Your task to perform on an android device: Go to Reddit.com Image 0: 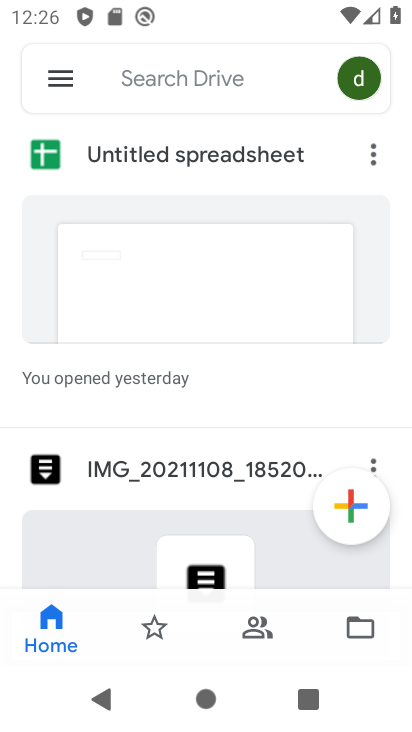
Step 0: press home button
Your task to perform on an android device: Go to Reddit.com Image 1: 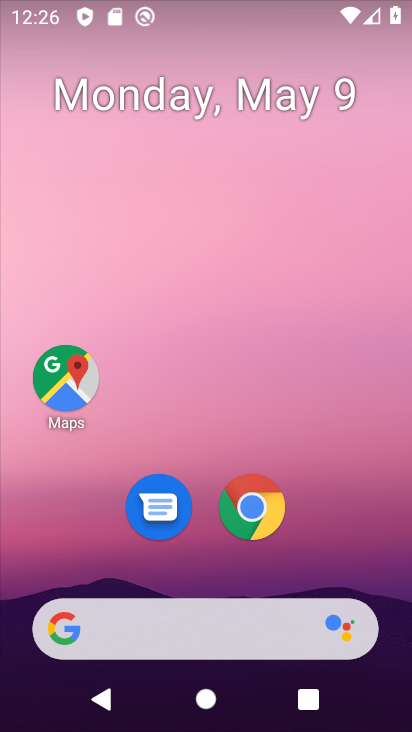
Step 1: click (261, 503)
Your task to perform on an android device: Go to Reddit.com Image 2: 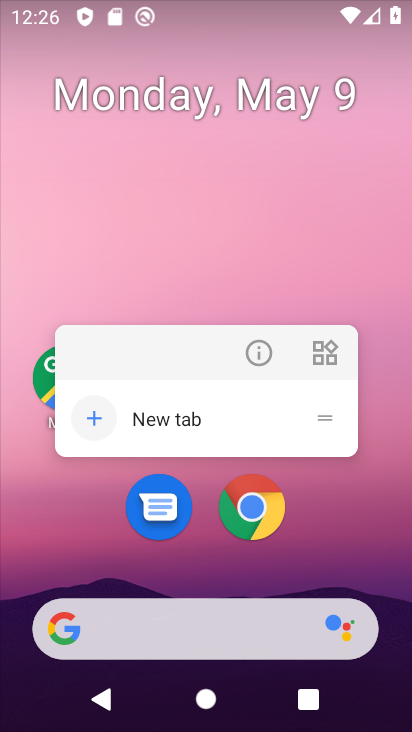
Step 2: click (255, 512)
Your task to perform on an android device: Go to Reddit.com Image 3: 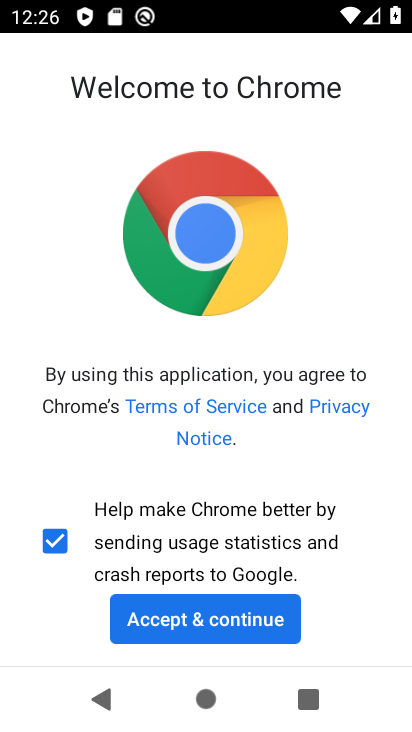
Step 3: click (181, 622)
Your task to perform on an android device: Go to Reddit.com Image 4: 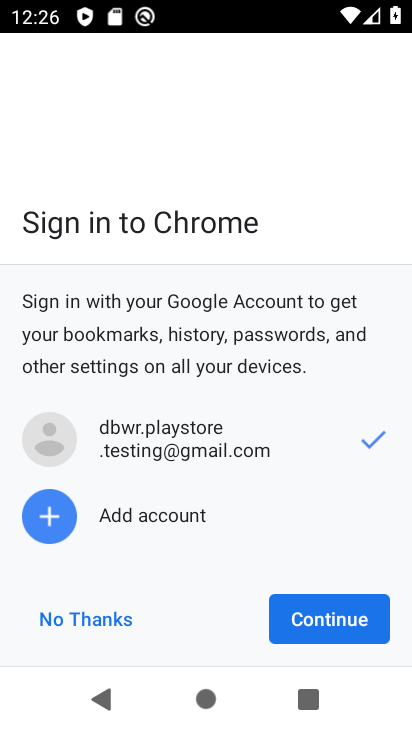
Step 4: click (361, 614)
Your task to perform on an android device: Go to Reddit.com Image 5: 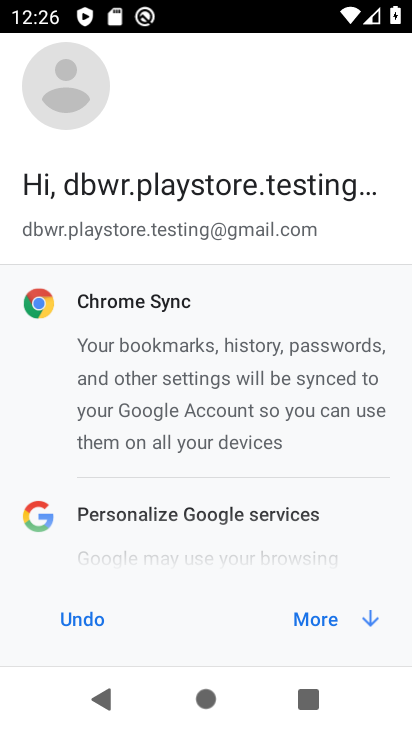
Step 5: click (309, 628)
Your task to perform on an android device: Go to Reddit.com Image 6: 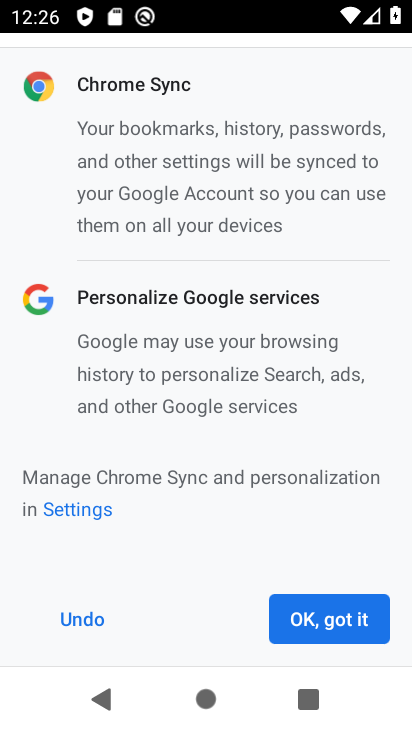
Step 6: click (309, 627)
Your task to perform on an android device: Go to Reddit.com Image 7: 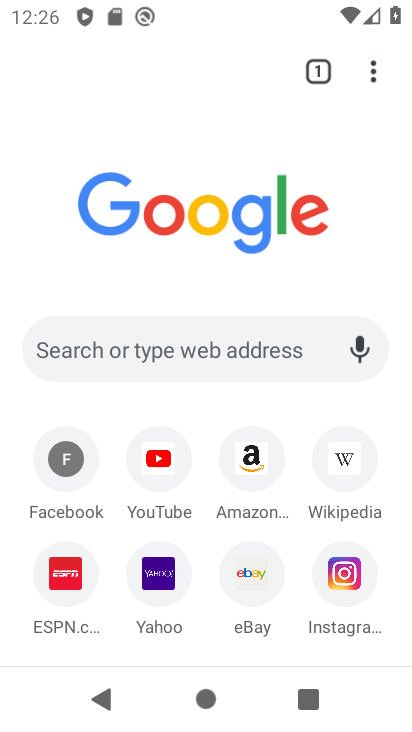
Step 7: click (150, 352)
Your task to perform on an android device: Go to Reddit.com Image 8: 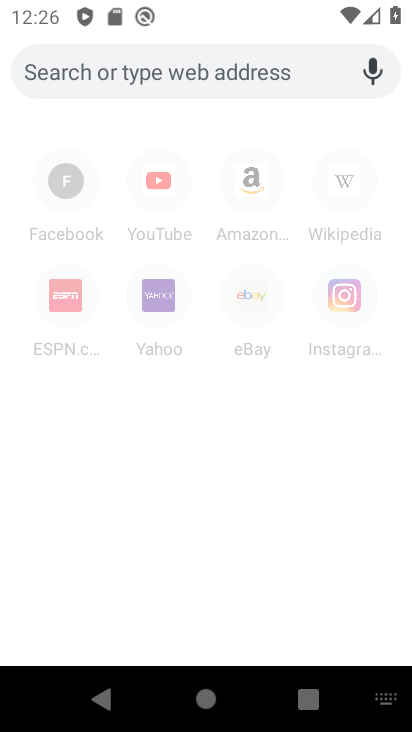
Step 8: type "Reddit.com"
Your task to perform on an android device: Go to Reddit.com Image 9: 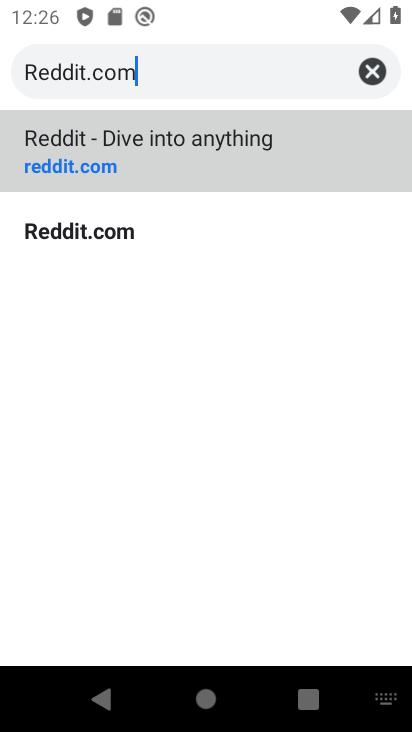
Step 9: click (96, 231)
Your task to perform on an android device: Go to Reddit.com Image 10: 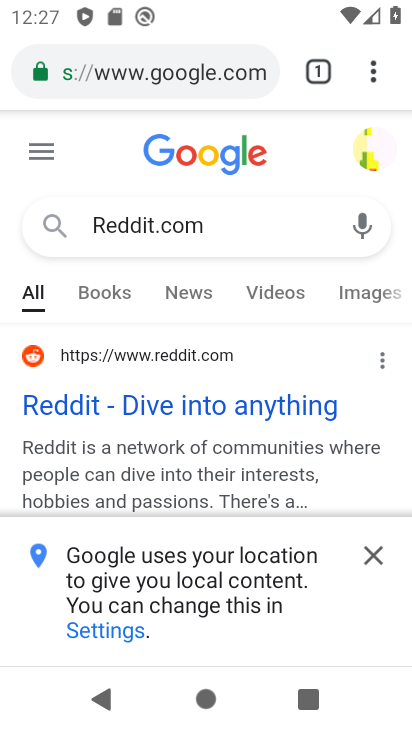
Step 10: click (103, 402)
Your task to perform on an android device: Go to Reddit.com Image 11: 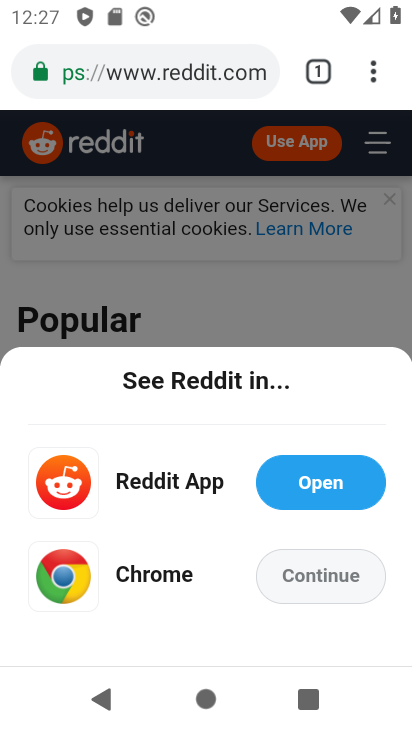
Step 11: task complete